Your task to perform on an android device: change the upload size in google photos Image 0: 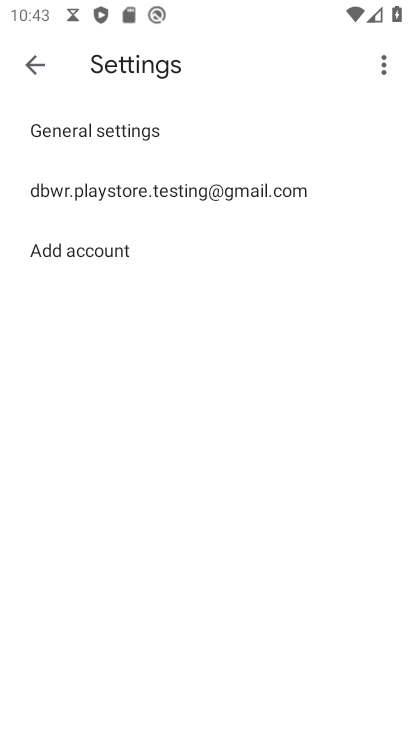
Step 0: press back button
Your task to perform on an android device: change the upload size in google photos Image 1: 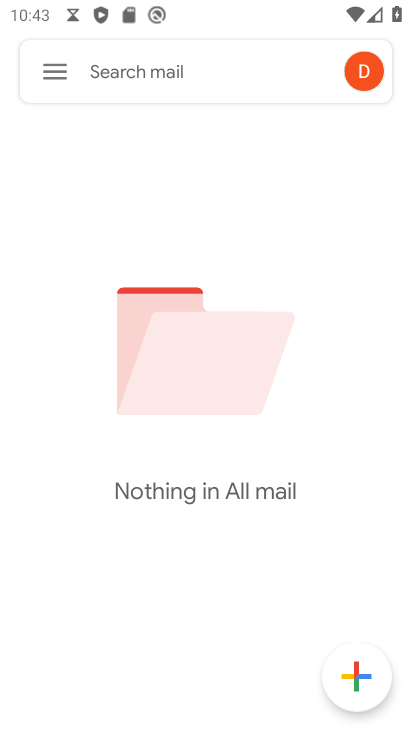
Step 1: press back button
Your task to perform on an android device: change the upload size in google photos Image 2: 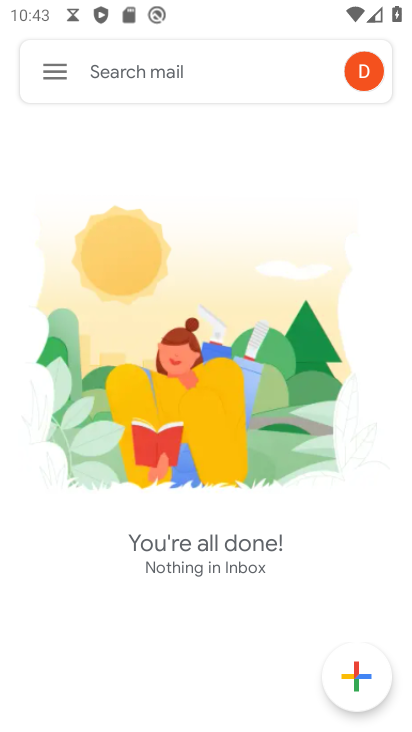
Step 2: press home button
Your task to perform on an android device: change the upload size in google photos Image 3: 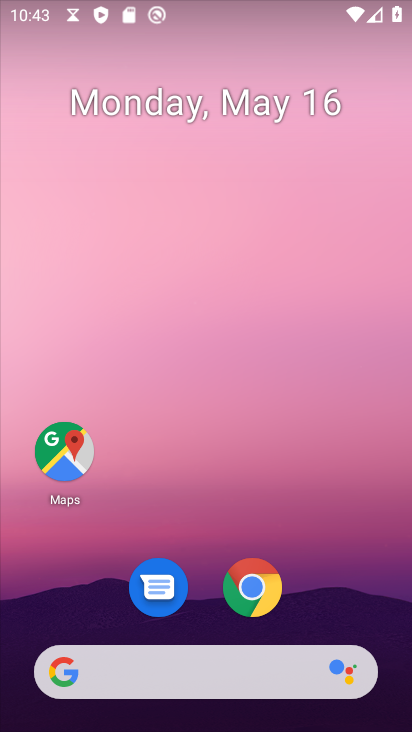
Step 3: drag from (324, 611) to (201, 46)
Your task to perform on an android device: change the upload size in google photos Image 4: 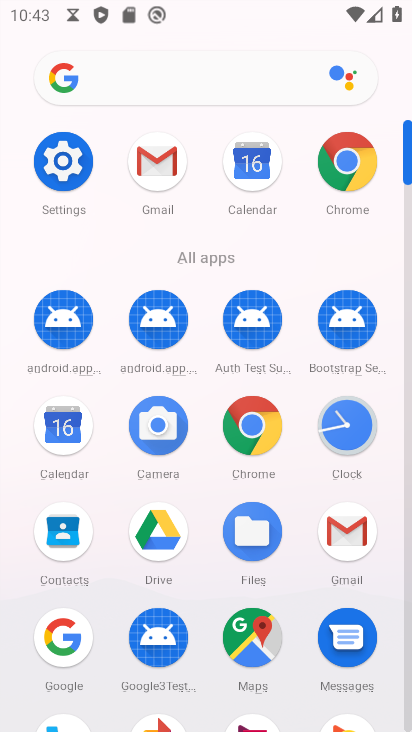
Step 4: drag from (10, 531) to (24, 172)
Your task to perform on an android device: change the upload size in google photos Image 5: 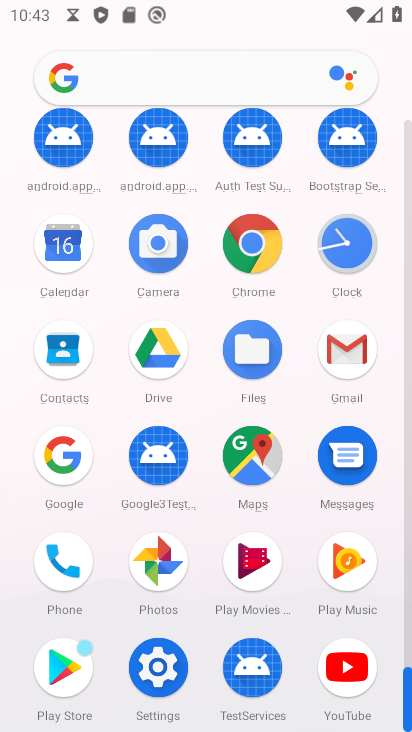
Step 5: click (164, 547)
Your task to perform on an android device: change the upload size in google photos Image 6: 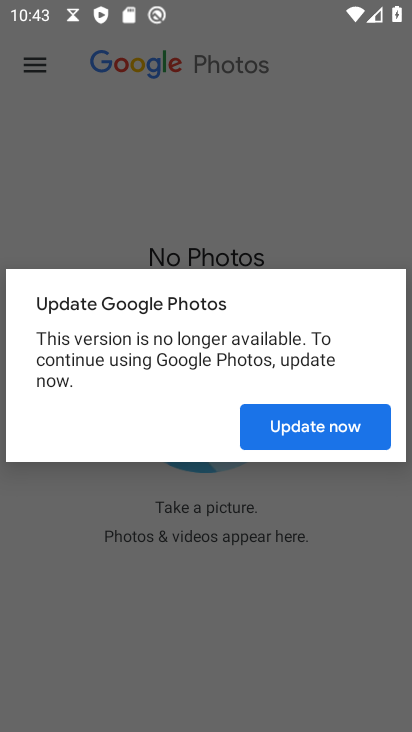
Step 6: click (156, 565)
Your task to perform on an android device: change the upload size in google photos Image 7: 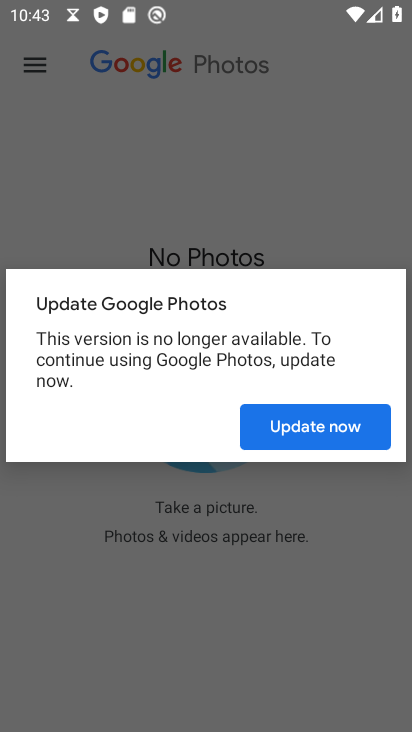
Step 7: click (345, 436)
Your task to perform on an android device: change the upload size in google photos Image 8: 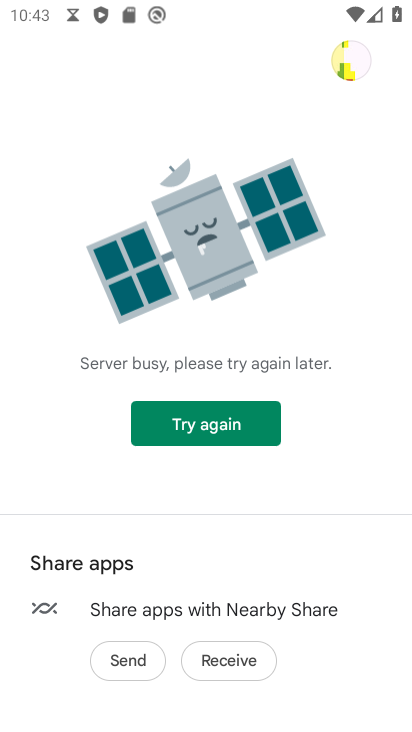
Step 8: click (225, 428)
Your task to perform on an android device: change the upload size in google photos Image 9: 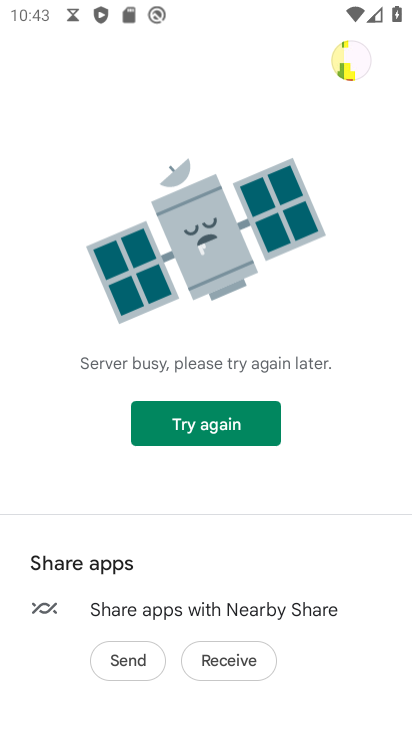
Step 9: task complete